Your task to perform on an android device: change alarm snooze length Image 0: 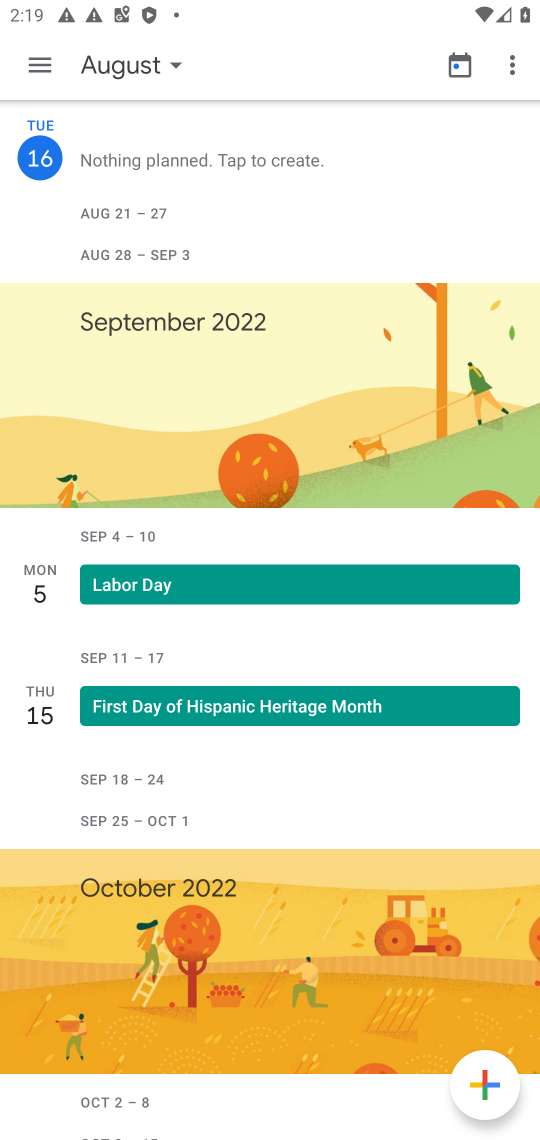
Step 0: press home button
Your task to perform on an android device: change alarm snooze length Image 1: 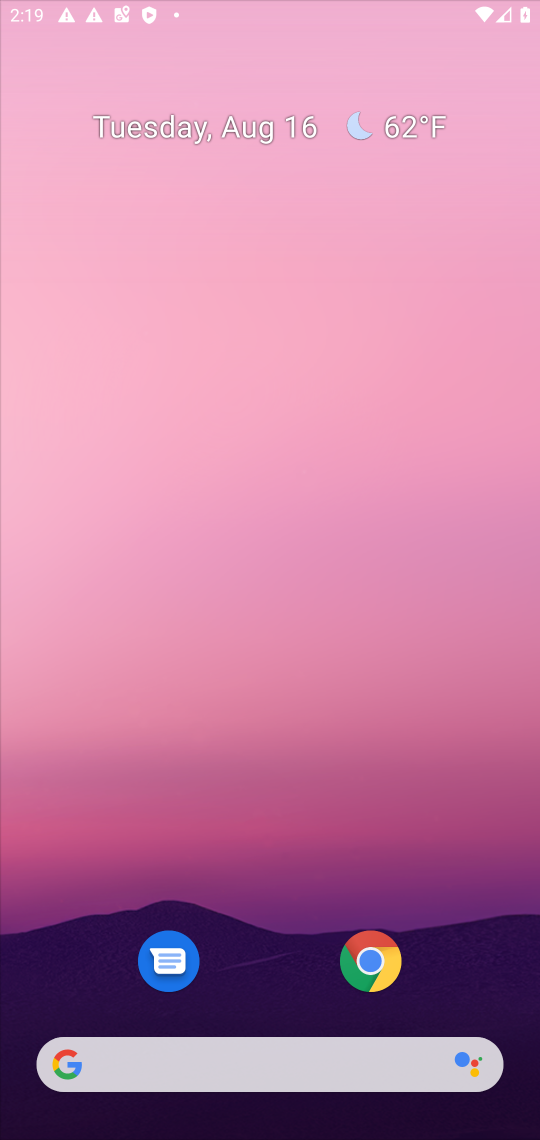
Step 1: drag from (483, 988) to (272, 133)
Your task to perform on an android device: change alarm snooze length Image 2: 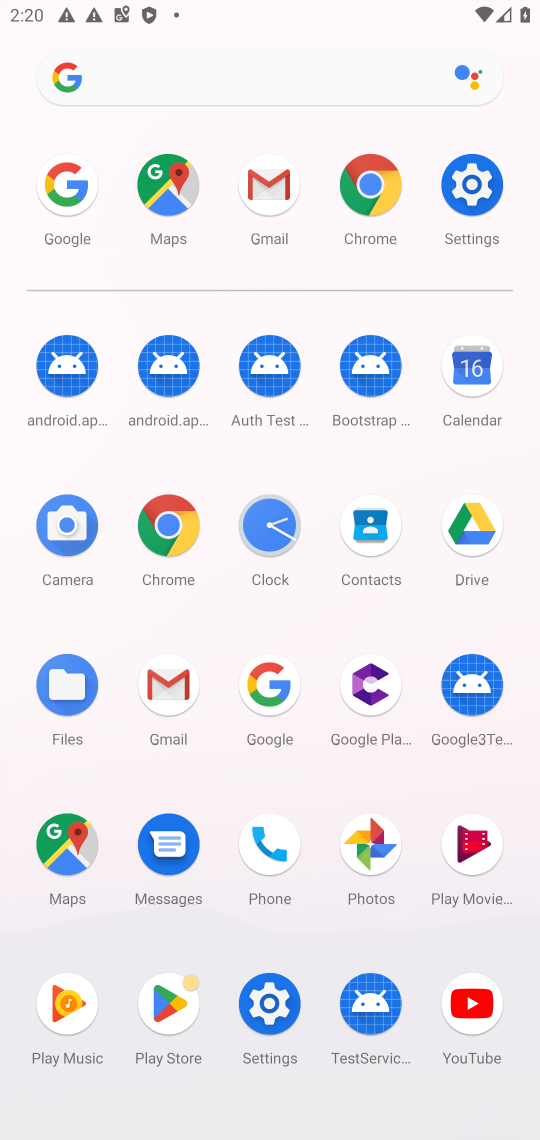
Step 2: click (281, 512)
Your task to perform on an android device: change alarm snooze length Image 3: 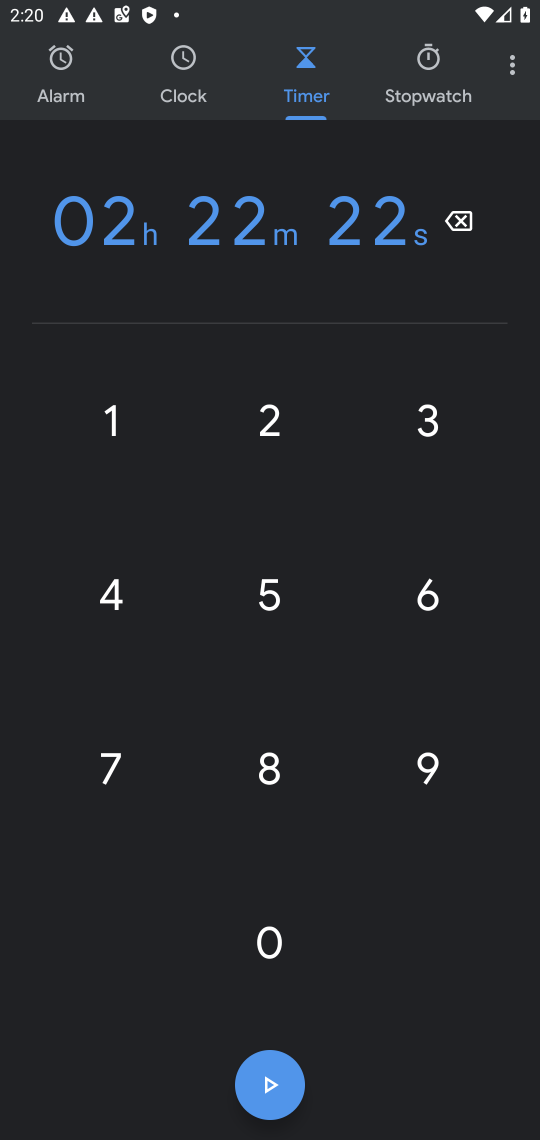
Step 3: click (517, 69)
Your task to perform on an android device: change alarm snooze length Image 4: 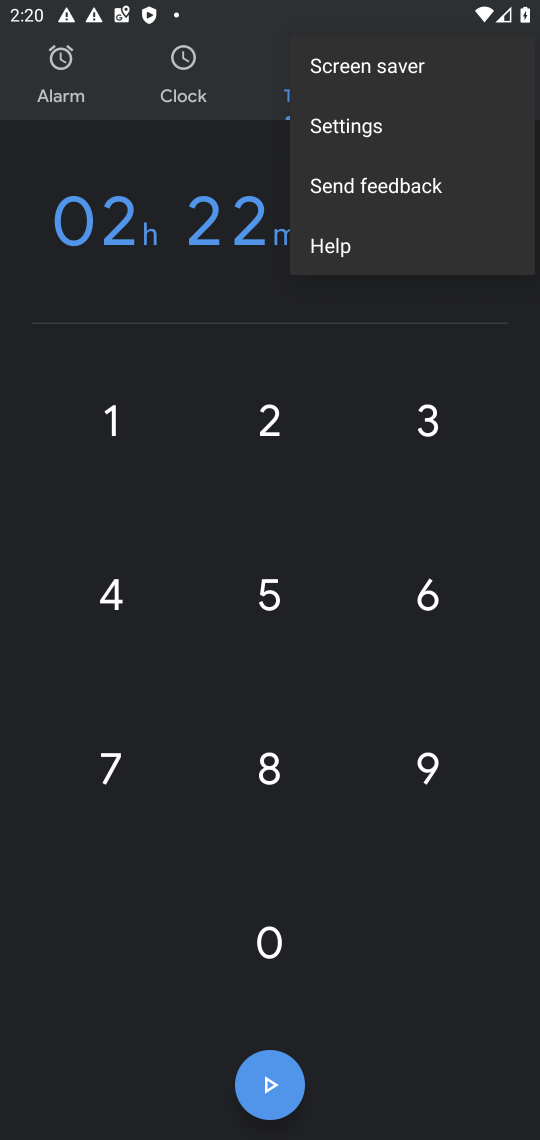
Step 4: click (347, 124)
Your task to perform on an android device: change alarm snooze length Image 5: 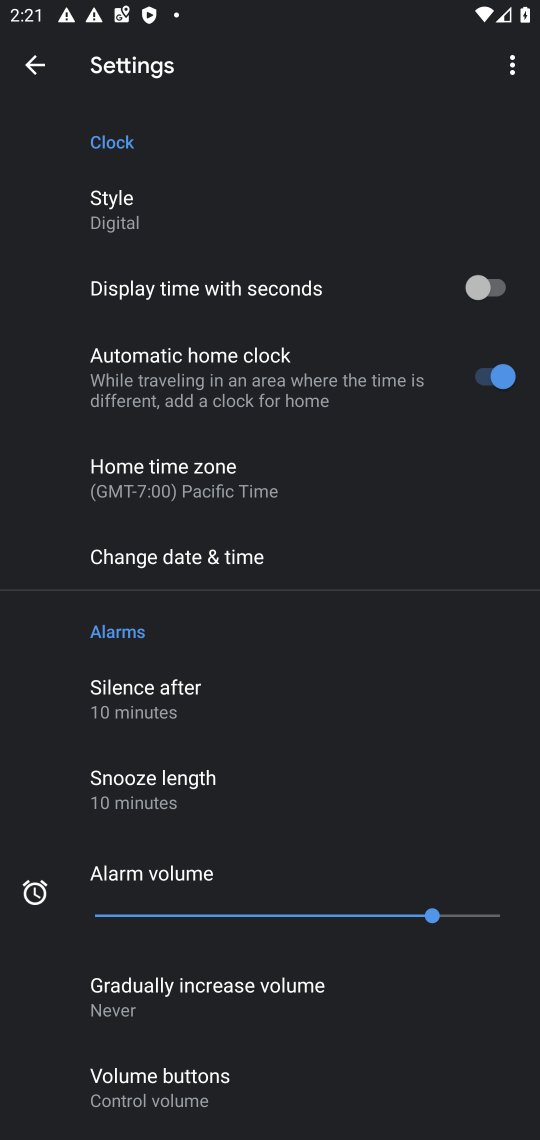
Step 5: click (205, 801)
Your task to perform on an android device: change alarm snooze length Image 6: 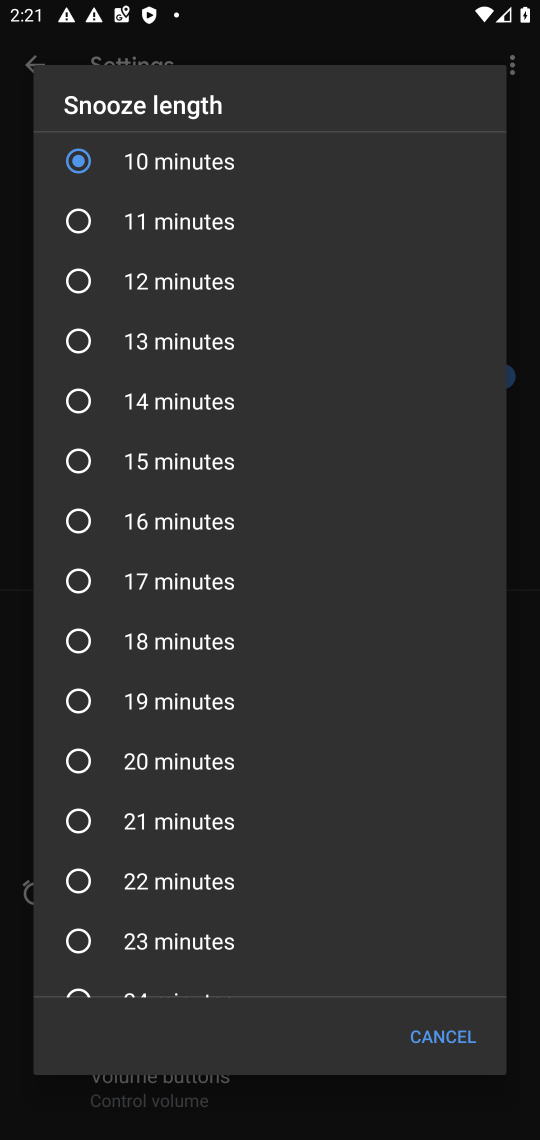
Step 6: click (172, 639)
Your task to perform on an android device: change alarm snooze length Image 7: 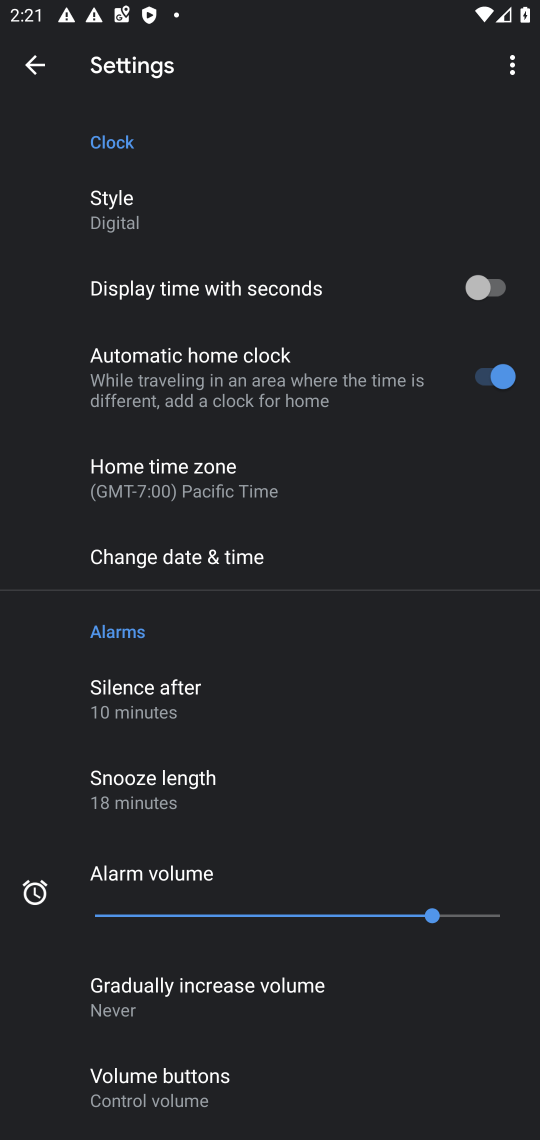
Step 7: task complete